Your task to perform on an android device: open app "Spotify" (install if not already installed) Image 0: 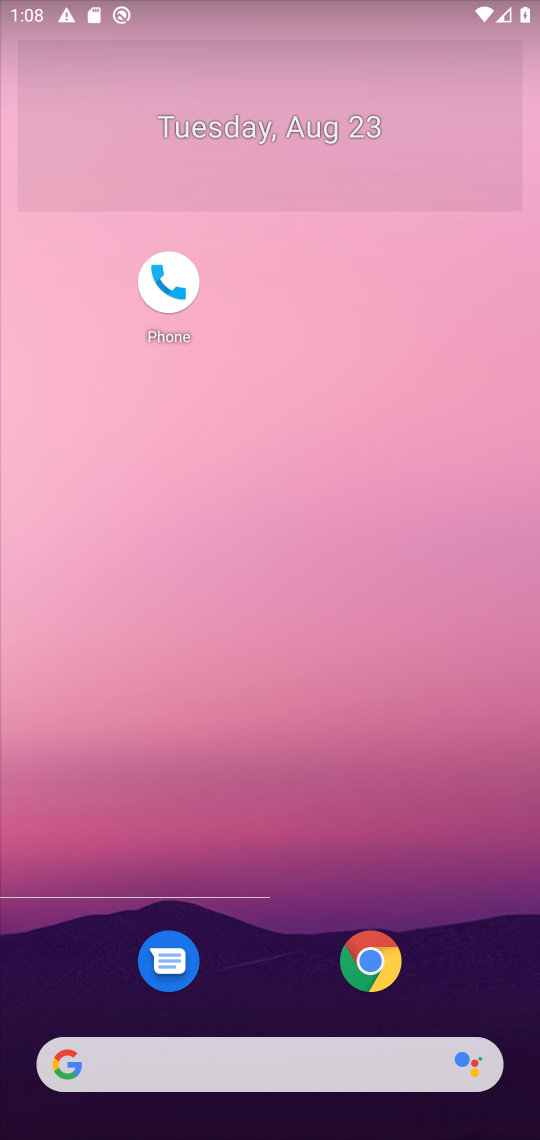
Step 0: drag from (274, 1023) to (270, 243)
Your task to perform on an android device: open app "Spotify" (install if not already installed) Image 1: 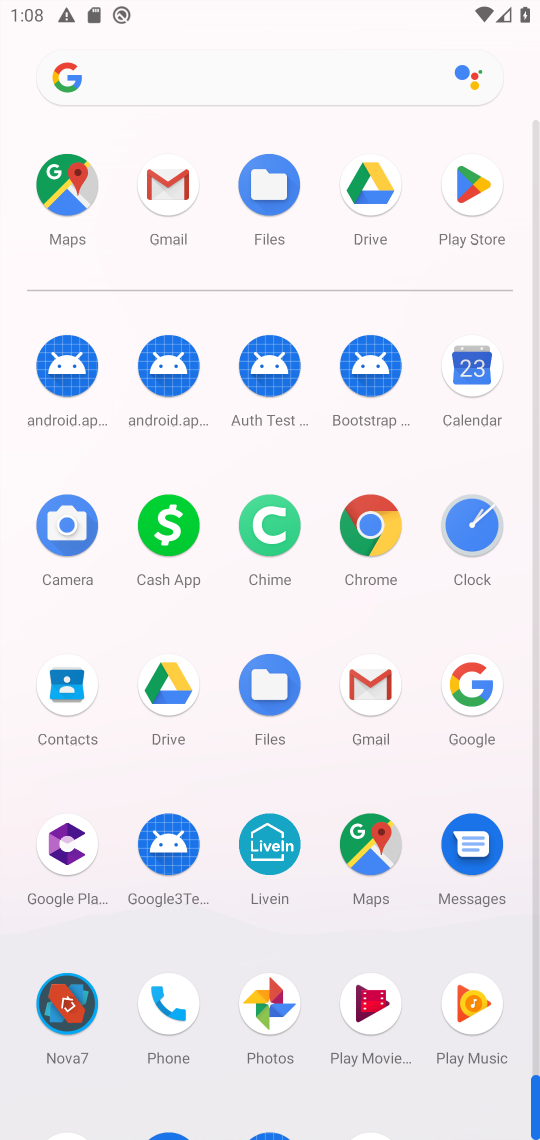
Step 1: click (497, 236)
Your task to perform on an android device: open app "Spotify" (install if not already installed) Image 2: 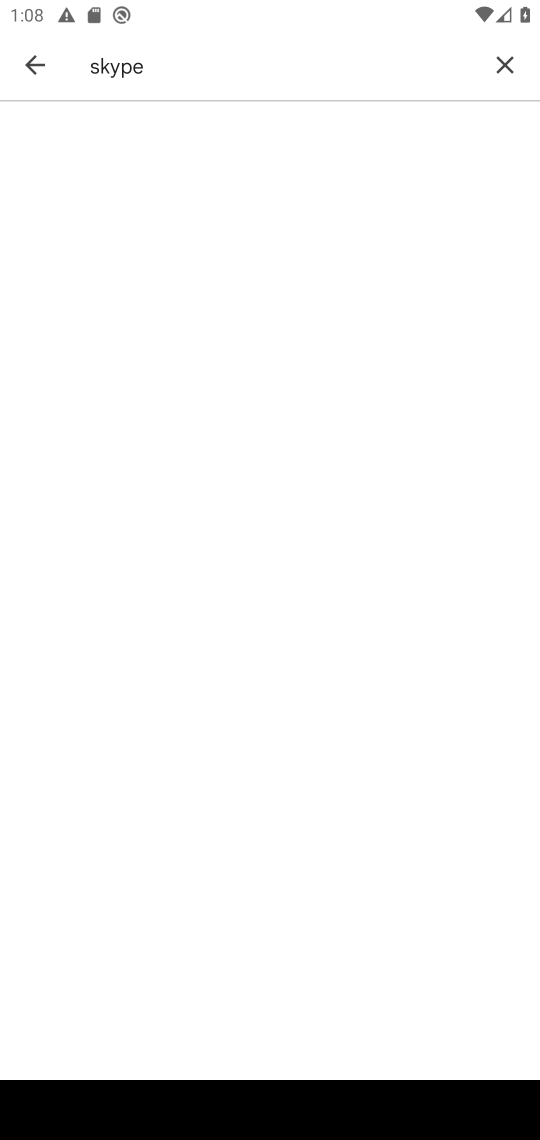
Step 2: click (503, 75)
Your task to perform on an android device: open app "Spotify" (install if not already installed) Image 3: 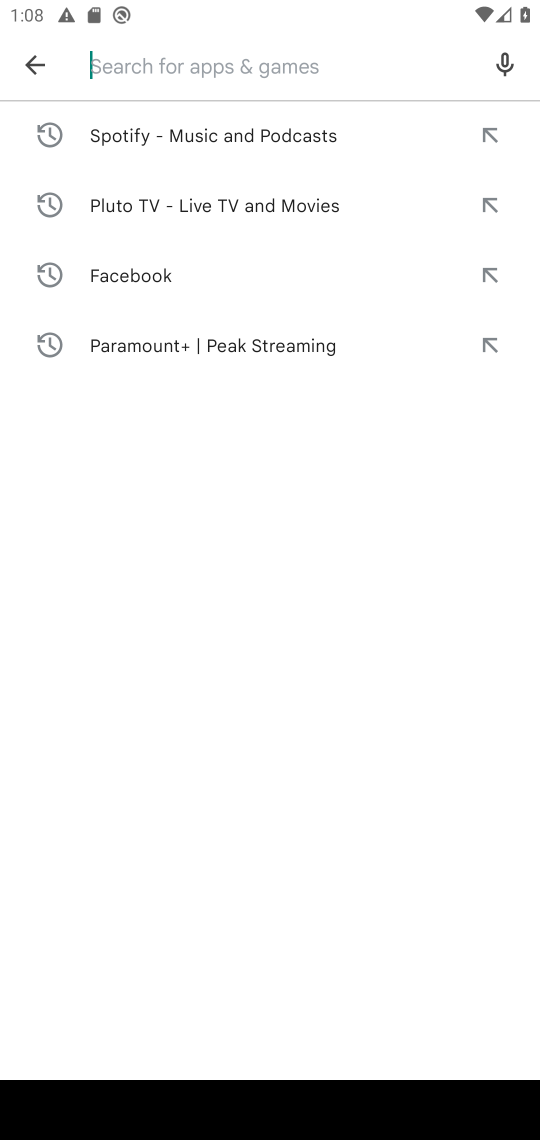
Step 3: type "spotify"
Your task to perform on an android device: open app "Spotify" (install if not already installed) Image 4: 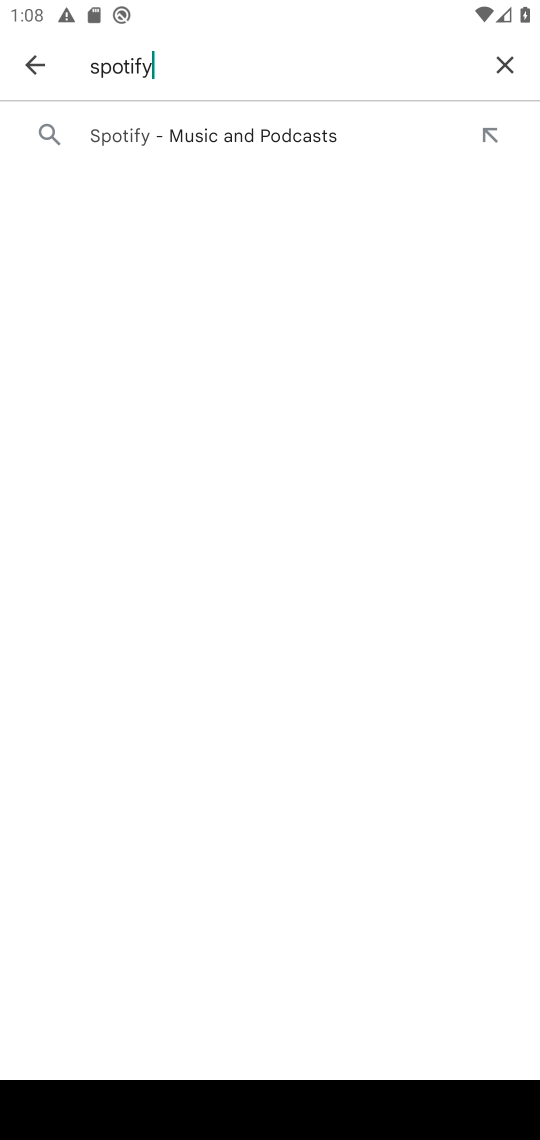
Step 4: click (155, 147)
Your task to perform on an android device: open app "Spotify" (install if not already installed) Image 5: 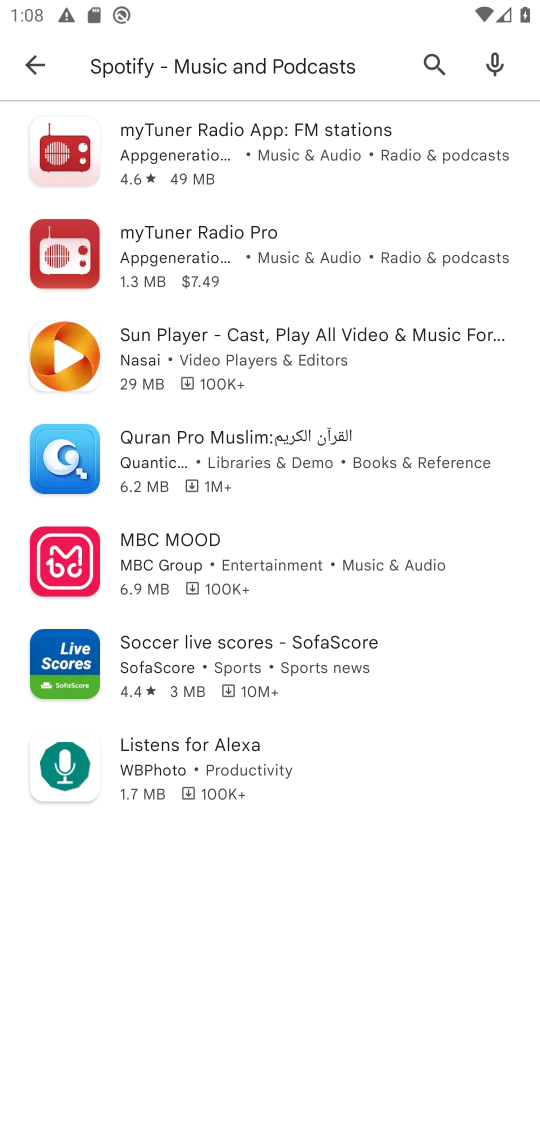
Step 5: task complete